Your task to perform on an android device: install app "Pandora - Music & Podcasts" Image 0: 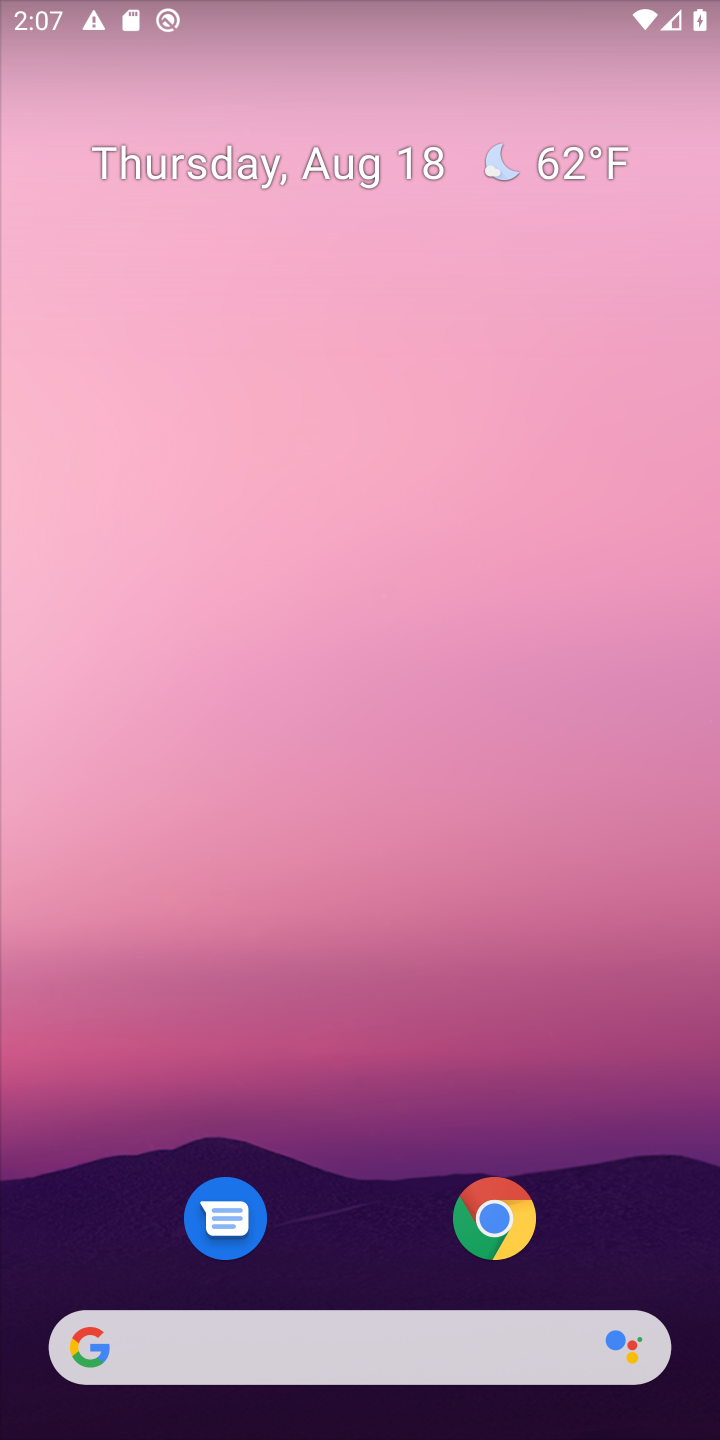
Step 0: drag from (344, 1107) to (394, 305)
Your task to perform on an android device: install app "Pandora - Music & Podcasts" Image 1: 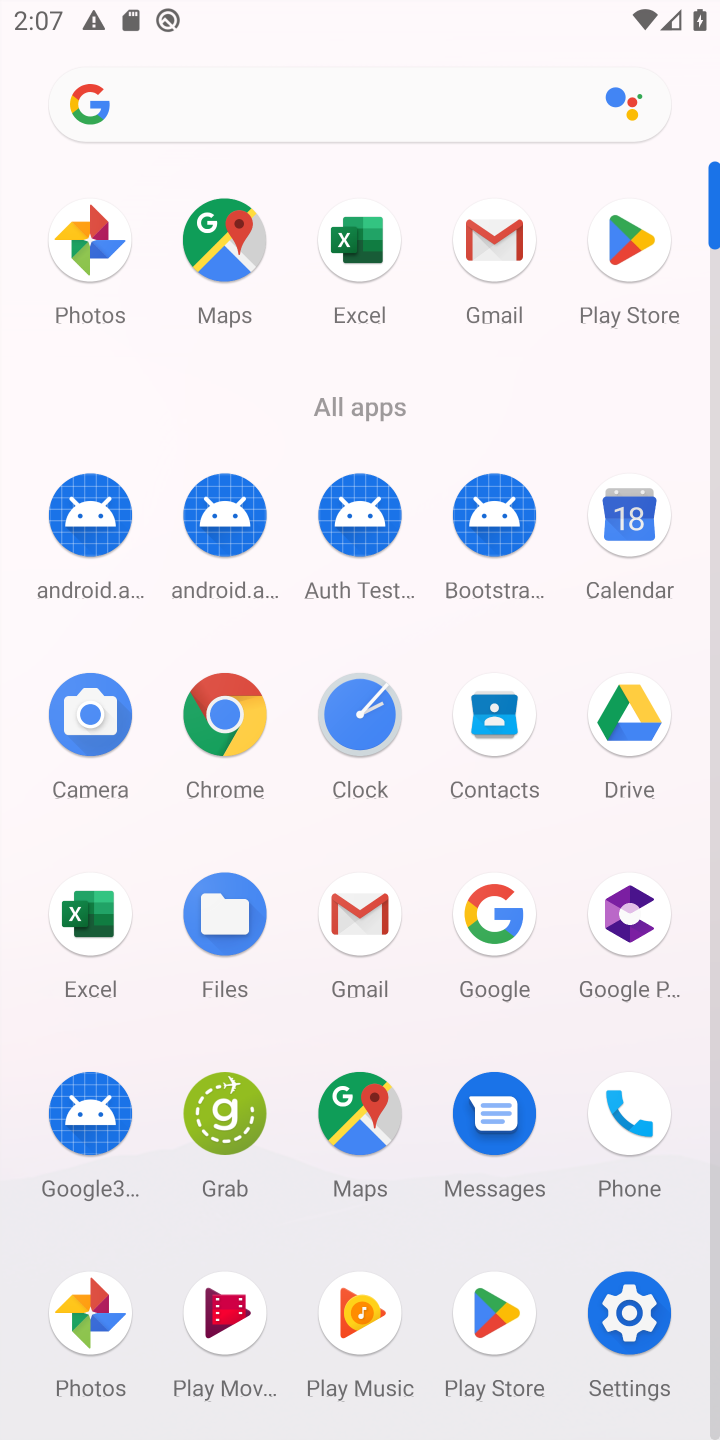
Step 1: click (636, 270)
Your task to perform on an android device: install app "Pandora - Music & Podcasts" Image 2: 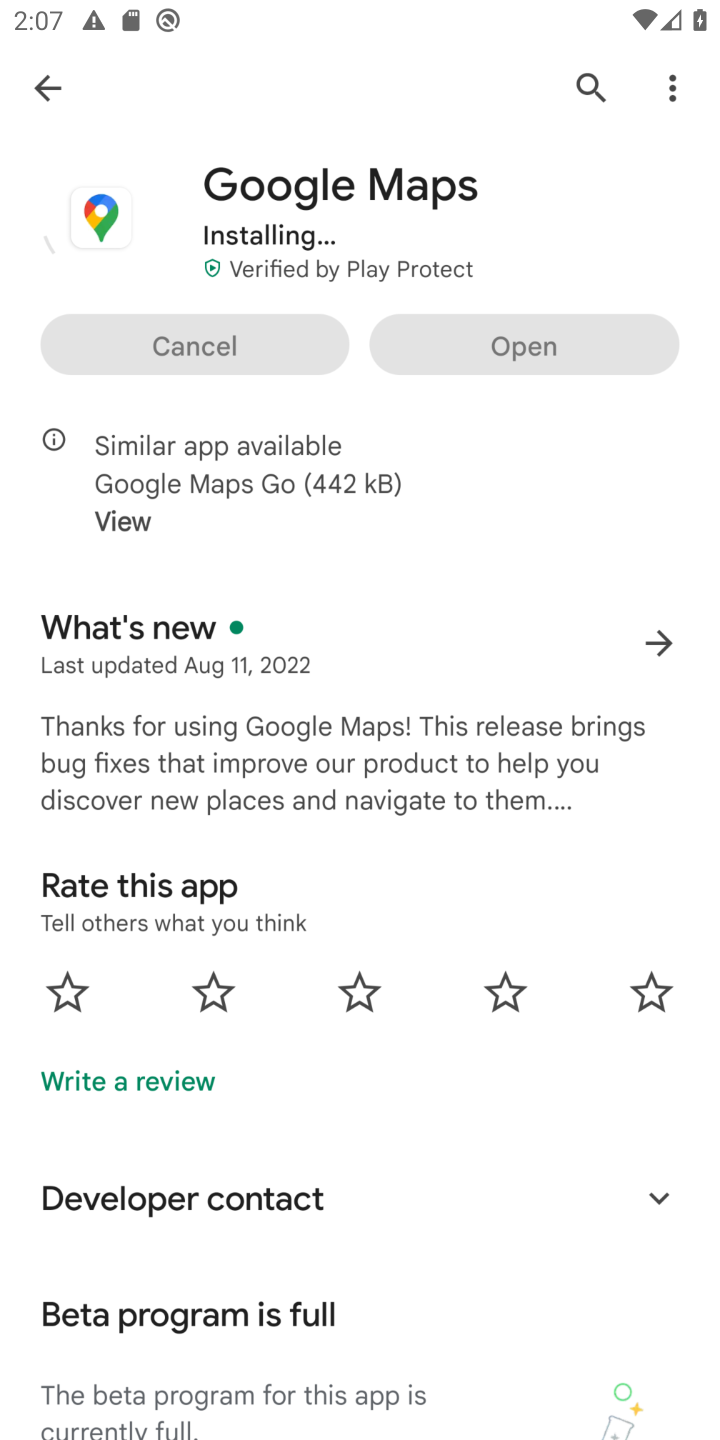
Step 2: click (592, 75)
Your task to perform on an android device: install app "Pandora - Music & Podcasts" Image 3: 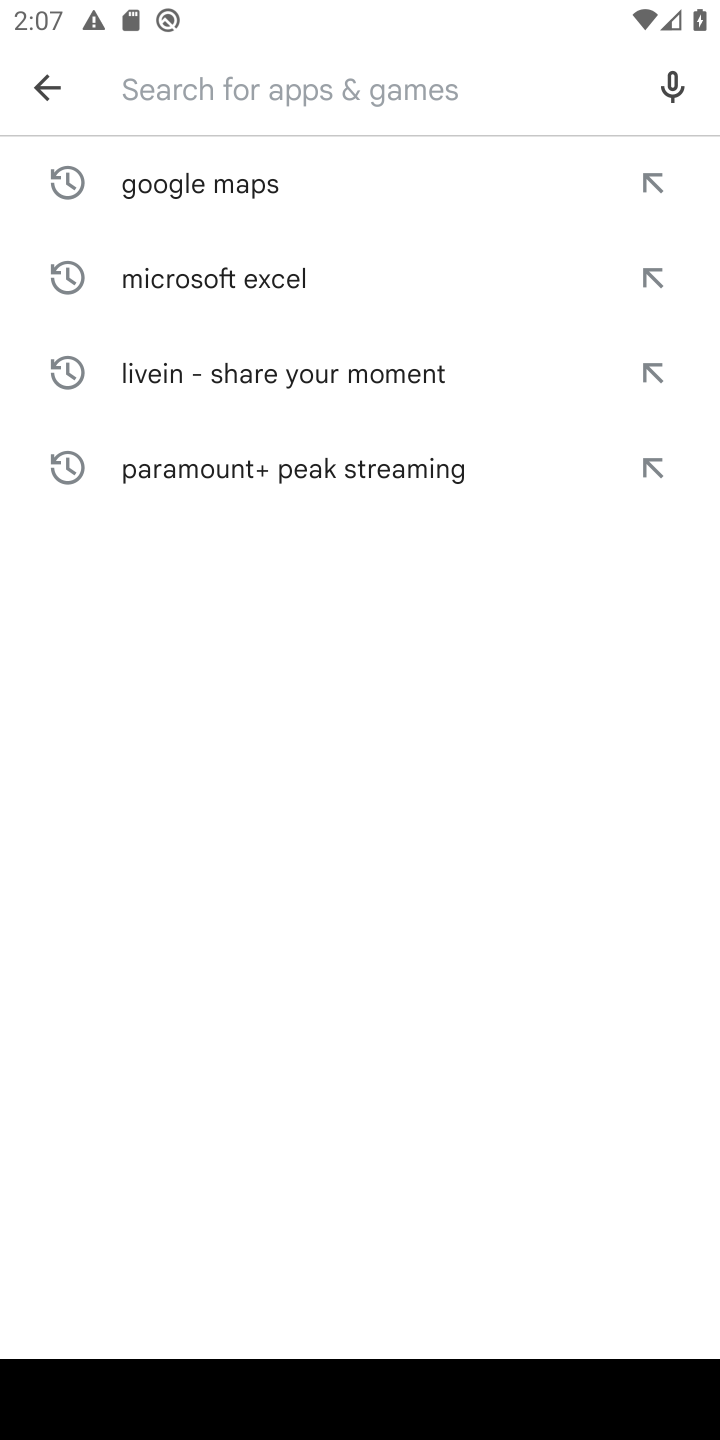
Step 3: type "Pandora - Music & Podcasts"
Your task to perform on an android device: install app "Pandora - Music & Podcasts" Image 4: 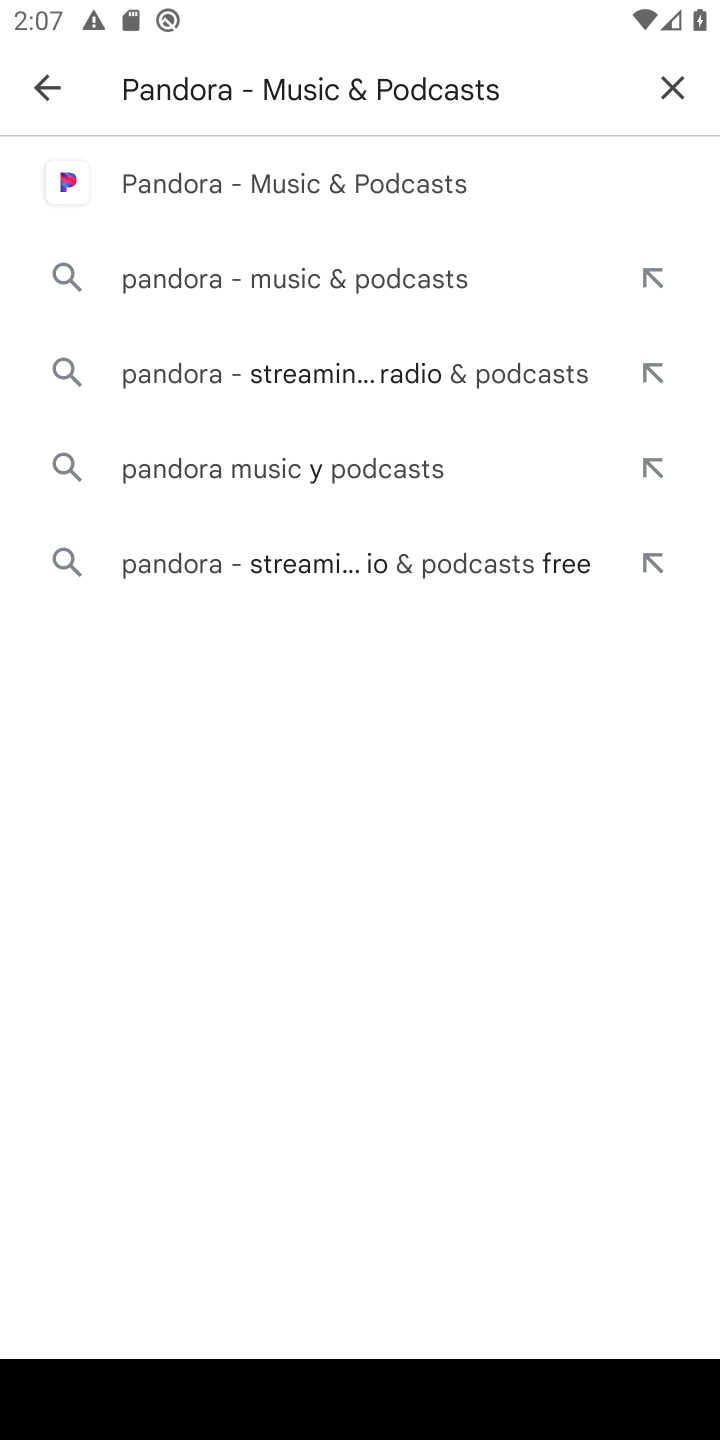
Step 4: click (381, 188)
Your task to perform on an android device: install app "Pandora - Music & Podcasts" Image 5: 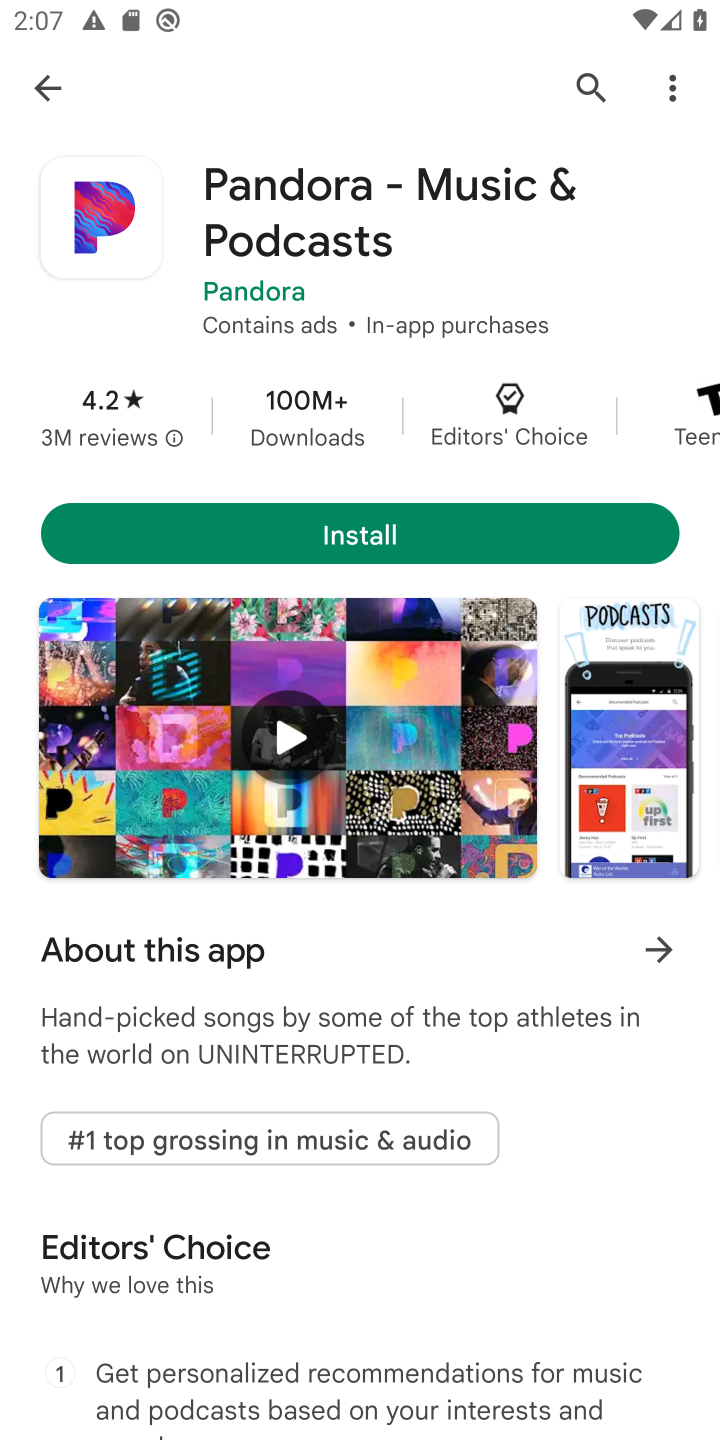
Step 5: click (385, 550)
Your task to perform on an android device: install app "Pandora - Music & Podcasts" Image 6: 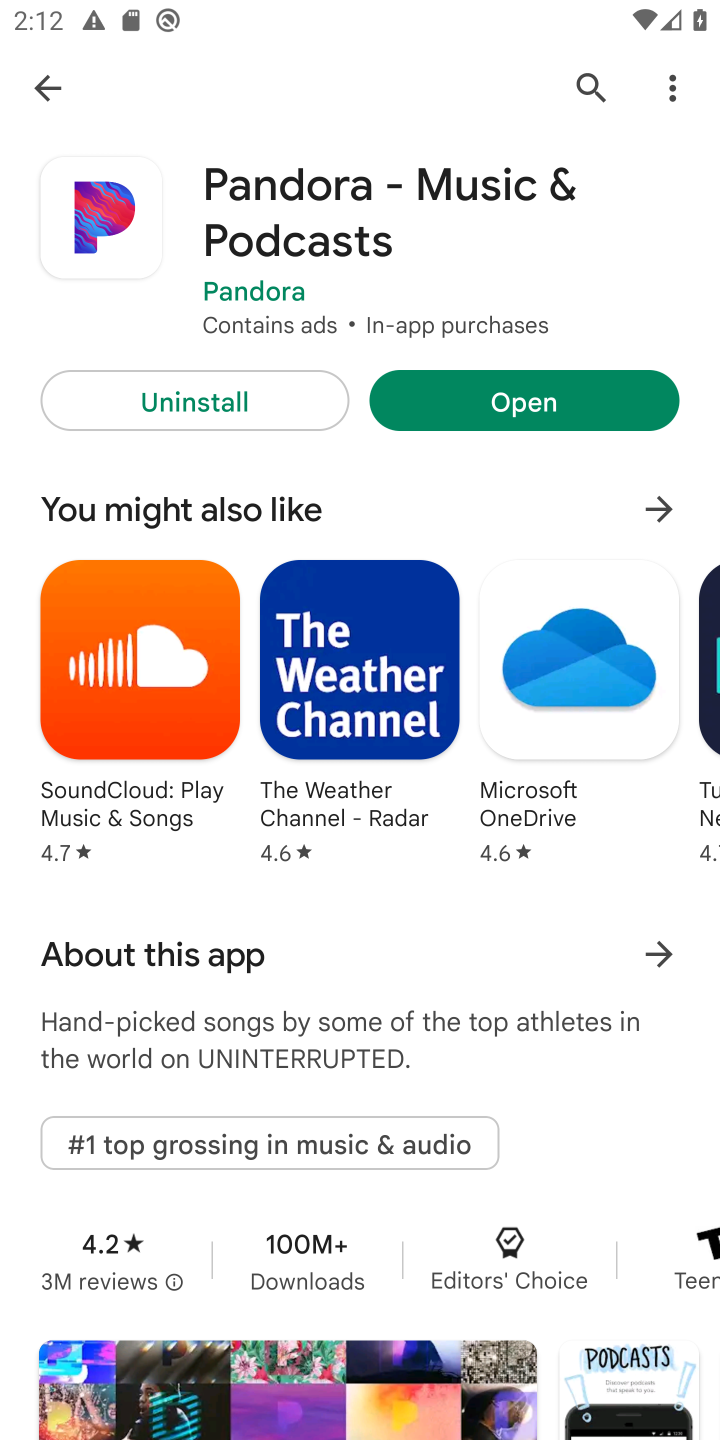
Step 6: task complete